Your task to perform on an android device: show emergency info Image 0: 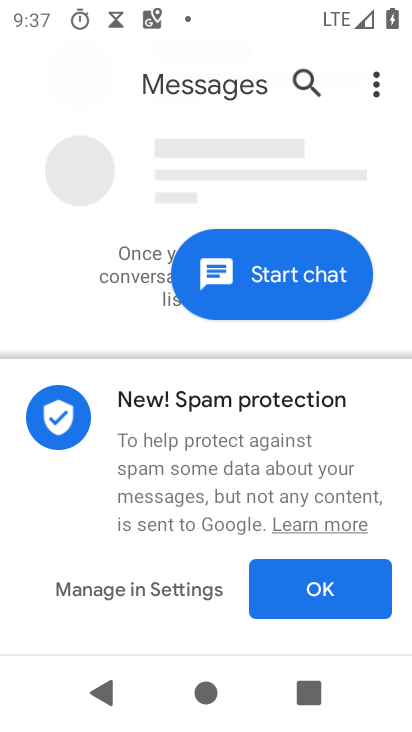
Step 0: press home button
Your task to perform on an android device: show emergency info Image 1: 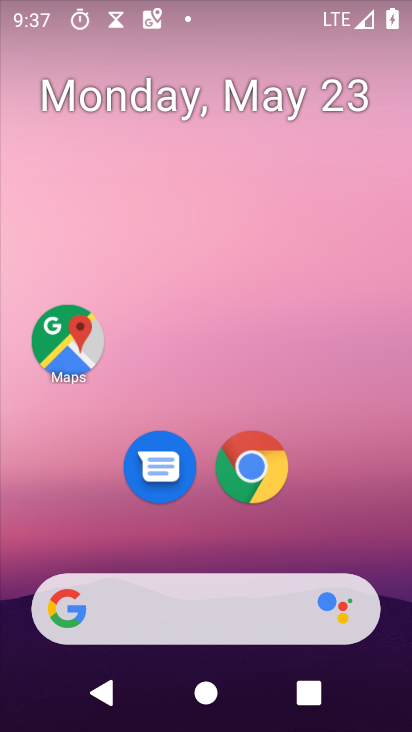
Step 1: drag from (347, 540) to (207, 51)
Your task to perform on an android device: show emergency info Image 2: 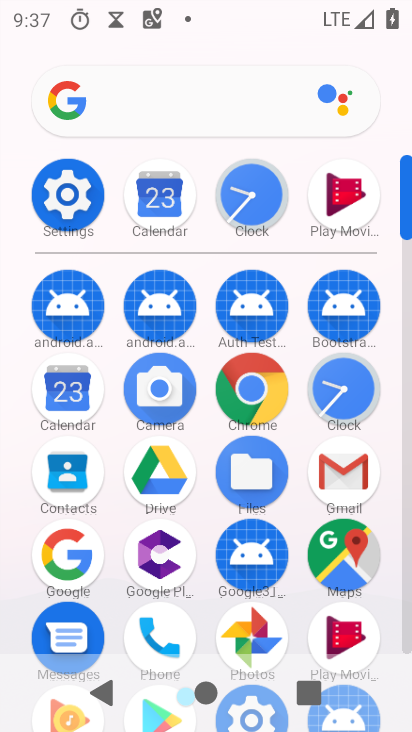
Step 2: click (55, 189)
Your task to perform on an android device: show emergency info Image 3: 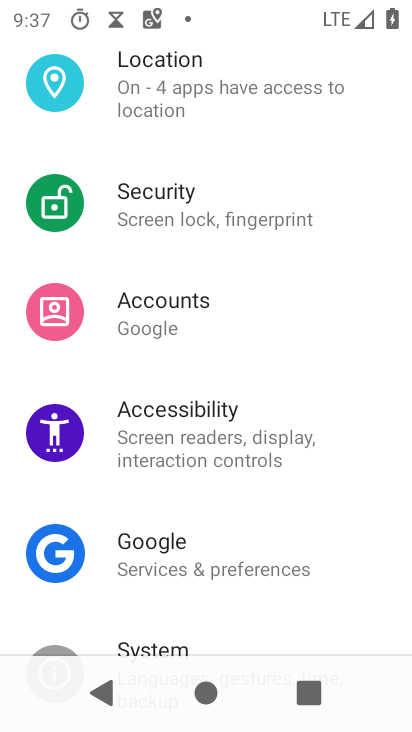
Step 3: drag from (280, 574) to (247, 177)
Your task to perform on an android device: show emergency info Image 4: 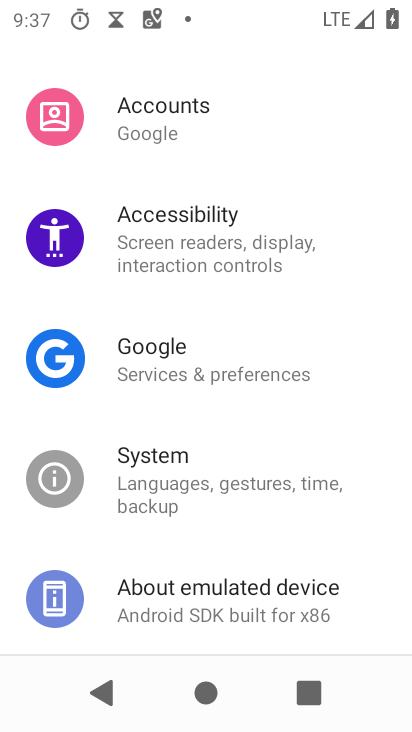
Step 4: click (230, 586)
Your task to perform on an android device: show emergency info Image 5: 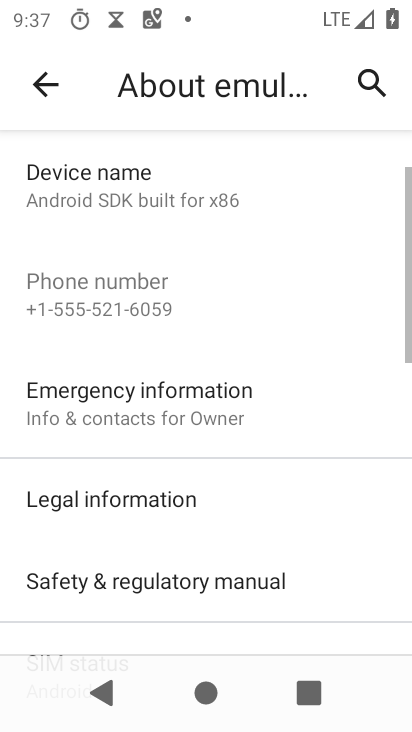
Step 5: click (219, 427)
Your task to perform on an android device: show emergency info Image 6: 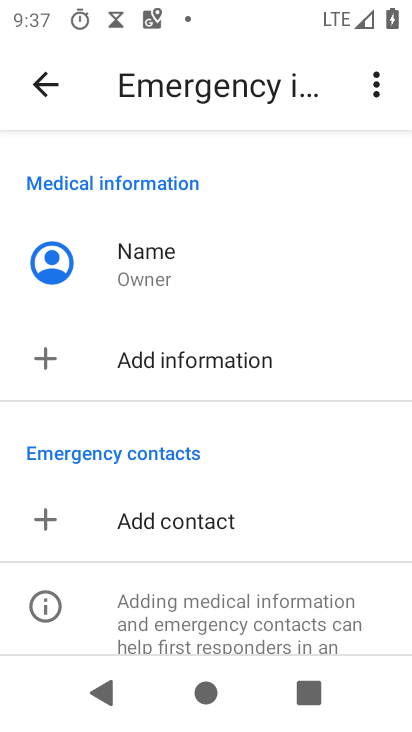
Step 6: task complete